Your task to perform on an android device: Open the stopwatch Image 0: 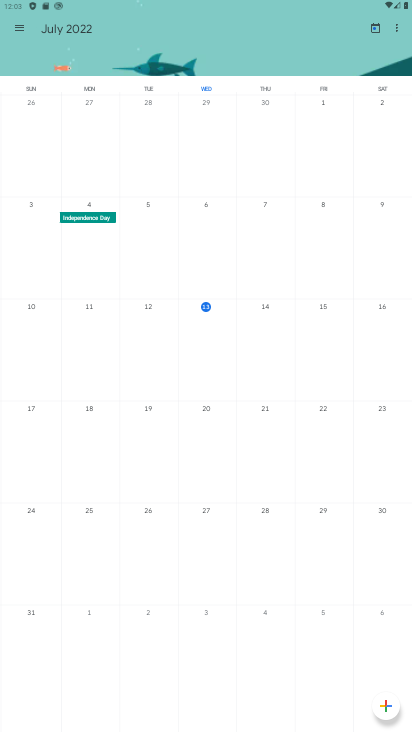
Step 0: press home button
Your task to perform on an android device: Open the stopwatch Image 1: 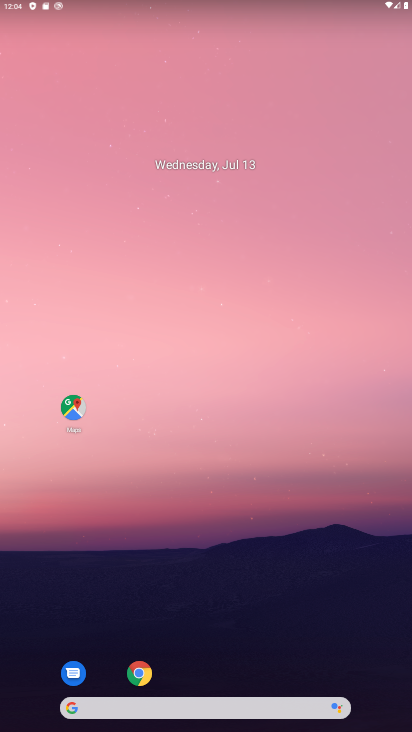
Step 1: drag from (246, 620) to (272, 171)
Your task to perform on an android device: Open the stopwatch Image 2: 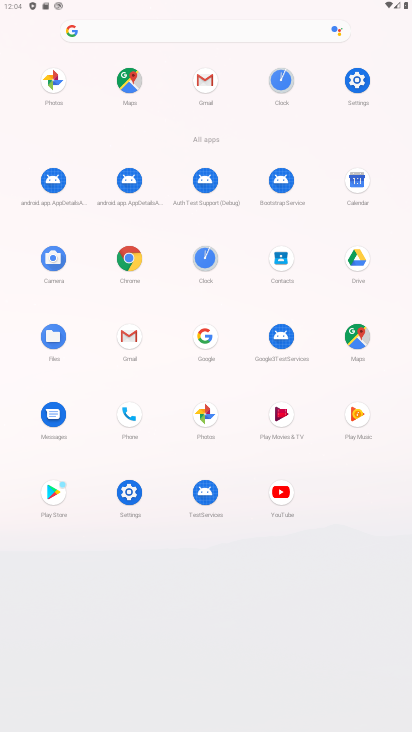
Step 2: click (294, 82)
Your task to perform on an android device: Open the stopwatch Image 3: 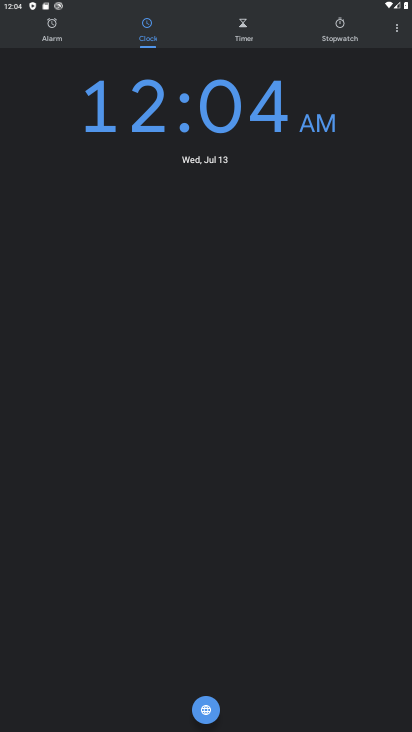
Step 3: click (342, 28)
Your task to perform on an android device: Open the stopwatch Image 4: 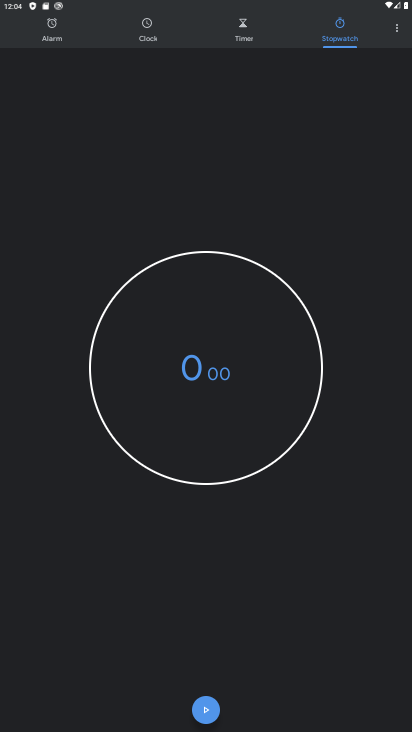
Step 4: task complete